Your task to perform on an android device: Open location settings Image 0: 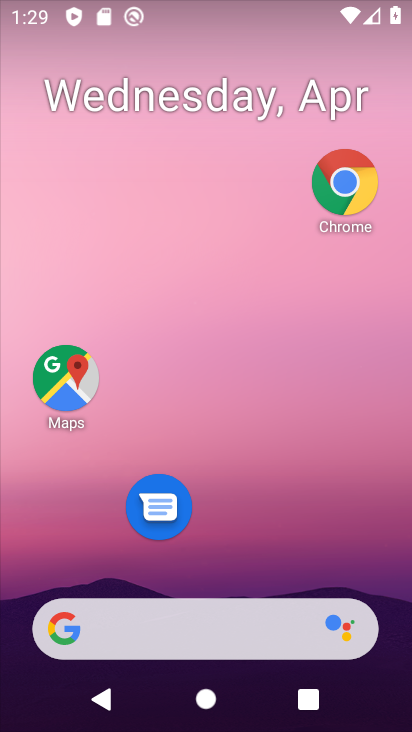
Step 0: drag from (261, 699) to (176, 3)
Your task to perform on an android device: Open location settings Image 1: 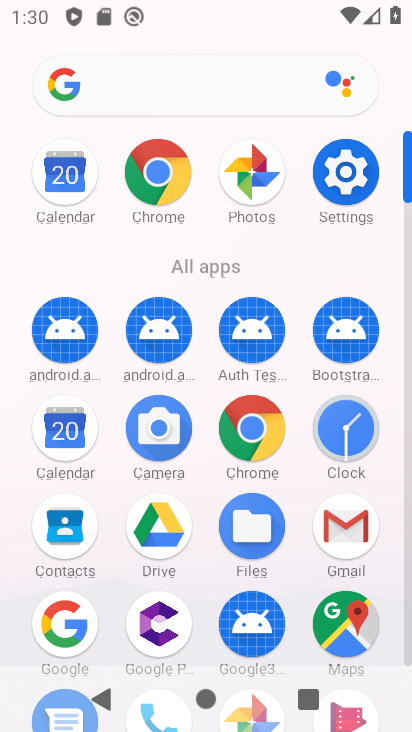
Step 1: click (342, 174)
Your task to perform on an android device: Open location settings Image 2: 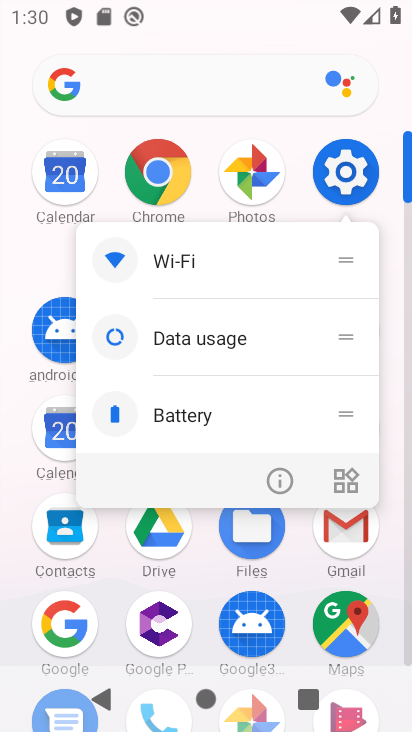
Step 2: click (342, 174)
Your task to perform on an android device: Open location settings Image 3: 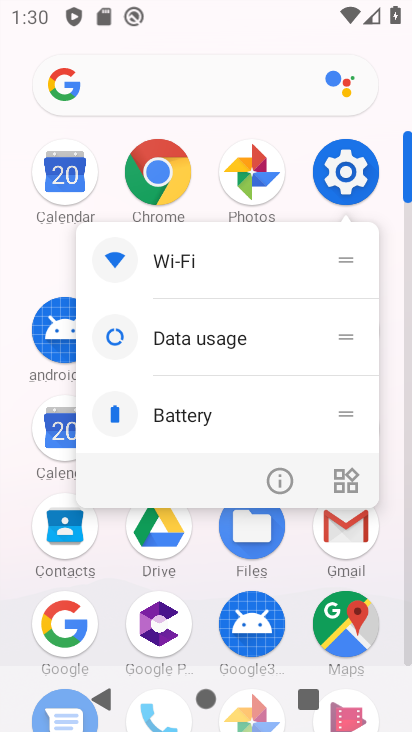
Step 3: click (267, 179)
Your task to perform on an android device: Open location settings Image 4: 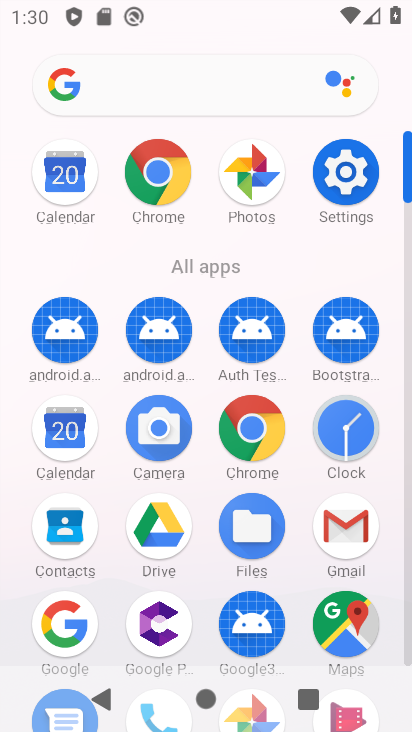
Step 4: click (360, 184)
Your task to perform on an android device: Open location settings Image 5: 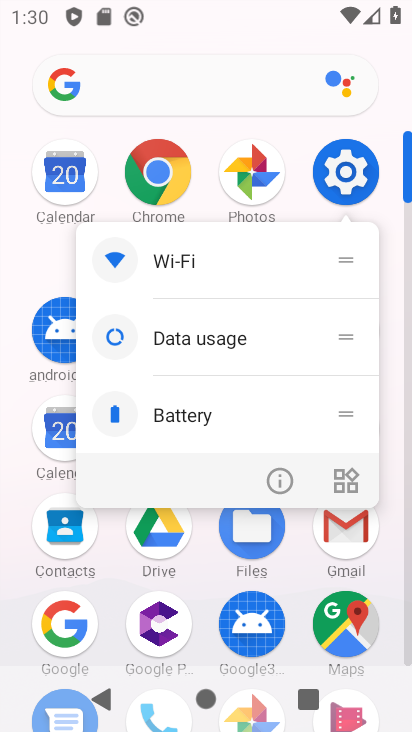
Step 5: click (35, 253)
Your task to perform on an android device: Open location settings Image 6: 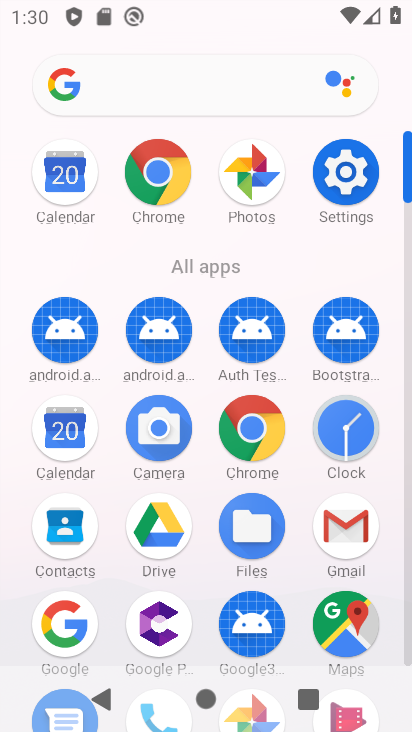
Step 6: click (358, 173)
Your task to perform on an android device: Open location settings Image 7: 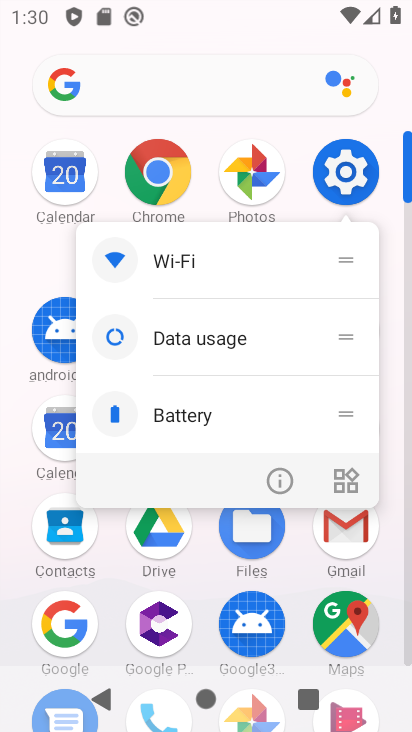
Step 7: click (354, 154)
Your task to perform on an android device: Open location settings Image 8: 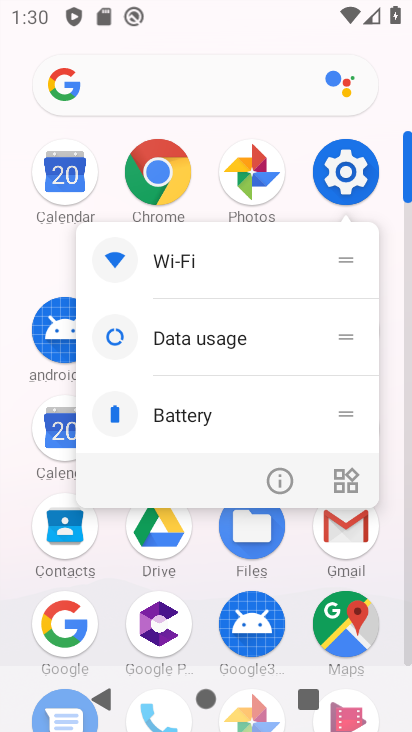
Step 8: click (353, 157)
Your task to perform on an android device: Open location settings Image 9: 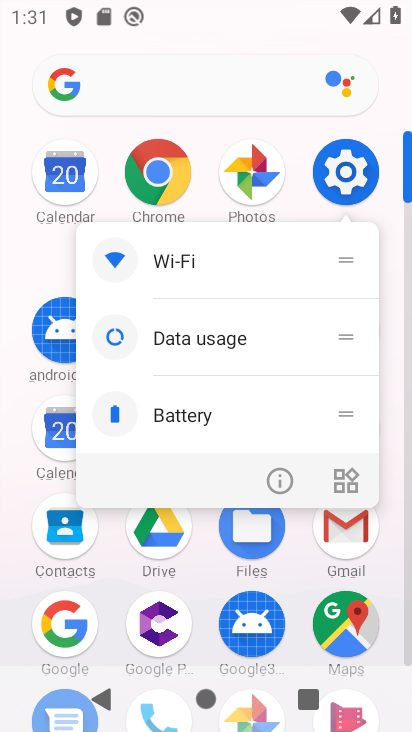
Step 9: click (343, 174)
Your task to perform on an android device: Open location settings Image 10: 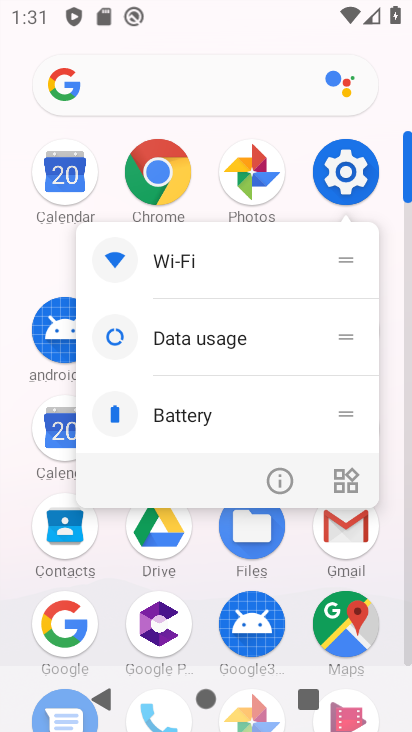
Step 10: click (343, 174)
Your task to perform on an android device: Open location settings Image 11: 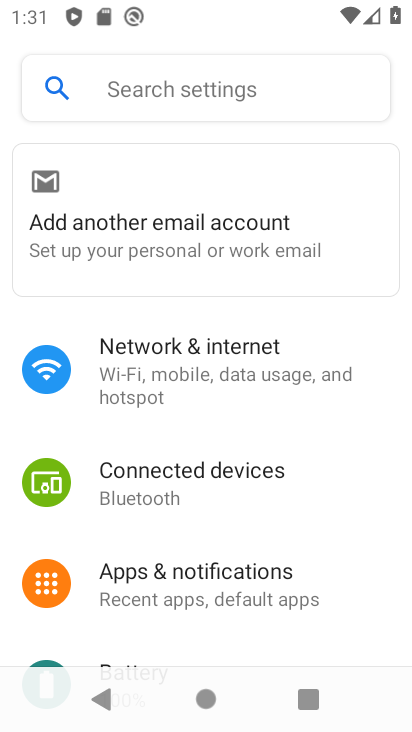
Step 11: drag from (320, 549) to (329, 118)
Your task to perform on an android device: Open location settings Image 12: 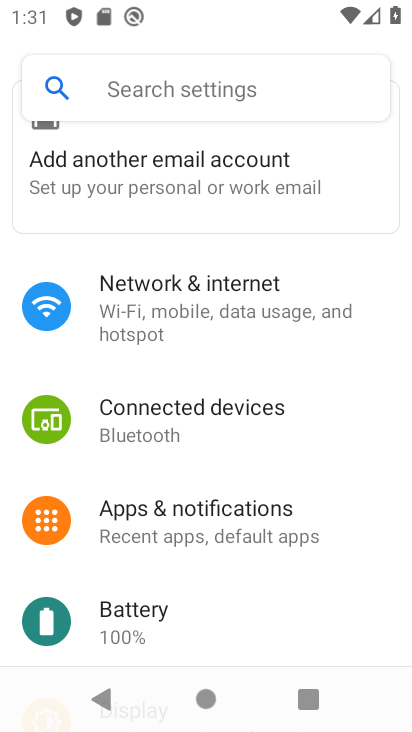
Step 12: drag from (261, 518) to (274, 15)
Your task to perform on an android device: Open location settings Image 13: 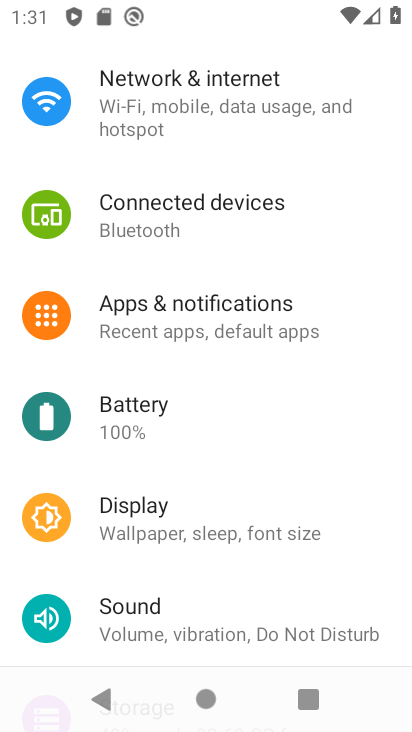
Step 13: drag from (295, 320) to (264, 40)
Your task to perform on an android device: Open location settings Image 14: 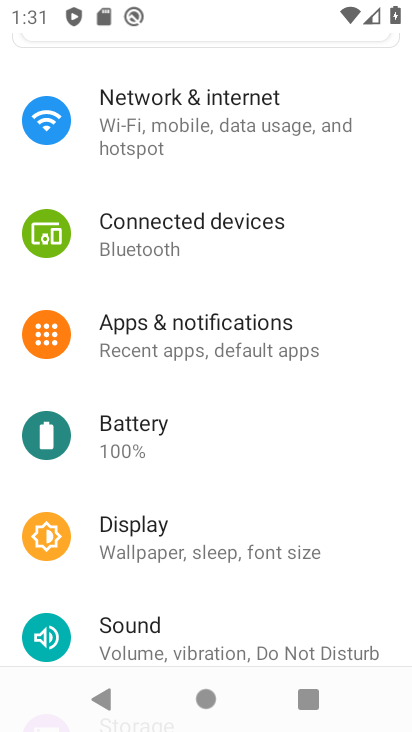
Step 14: drag from (207, 539) to (198, 19)
Your task to perform on an android device: Open location settings Image 15: 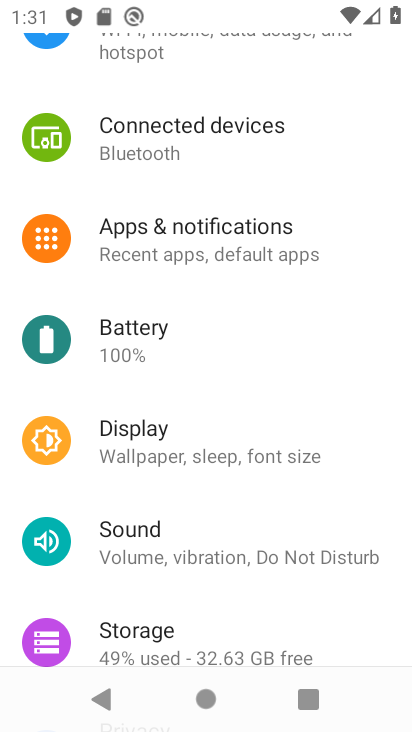
Step 15: drag from (273, 621) to (277, 12)
Your task to perform on an android device: Open location settings Image 16: 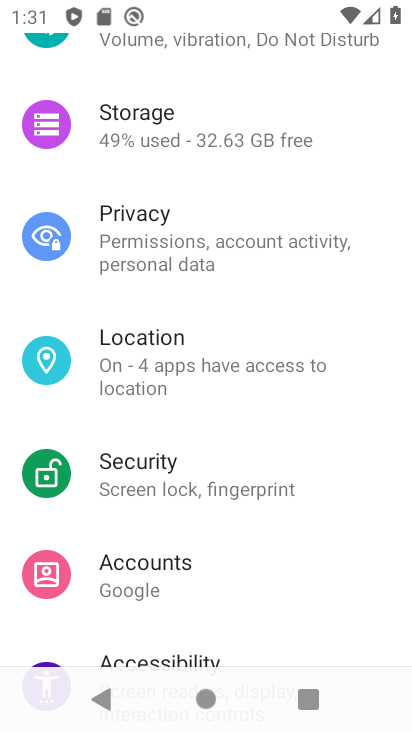
Step 16: click (261, 346)
Your task to perform on an android device: Open location settings Image 17: 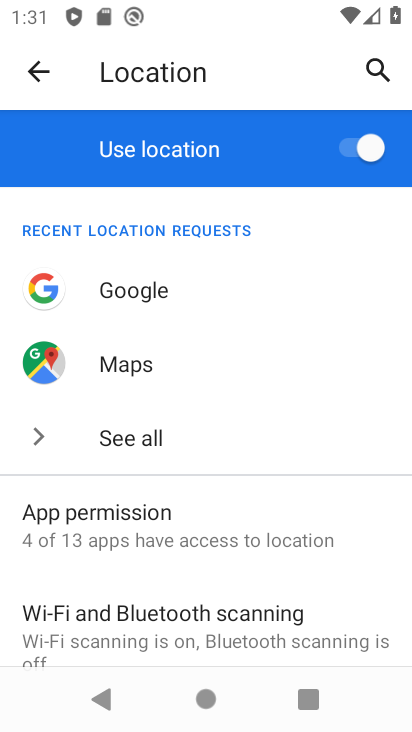
Step 17: task complete